Your task to perform on an android device: delete the emails in spam in the gmail app Image 0: 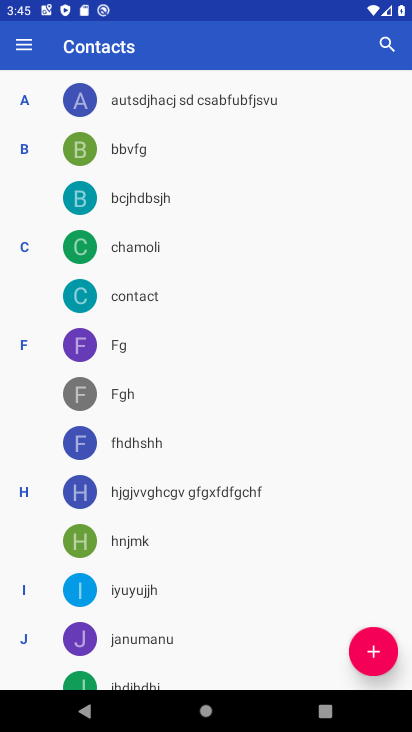
Step 0: press home button
Your task to perform on an android device: delete the emails in spam in the gmail app Image 1: 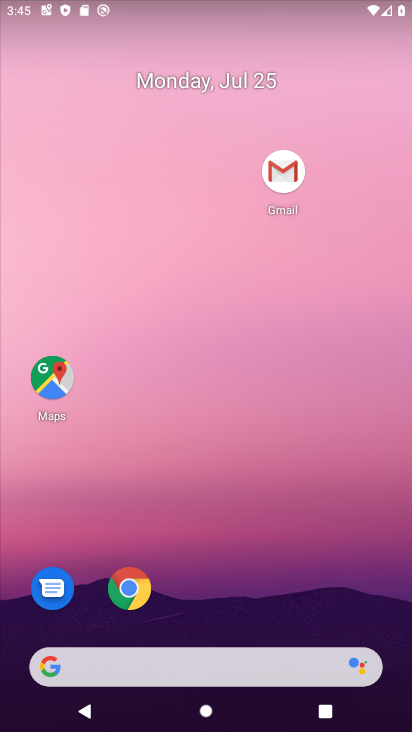
Step 1: drag from (315, 590) to (174, 1)
Your task to perform on an android device: delete the emails in spam in the gmail app Image 2: 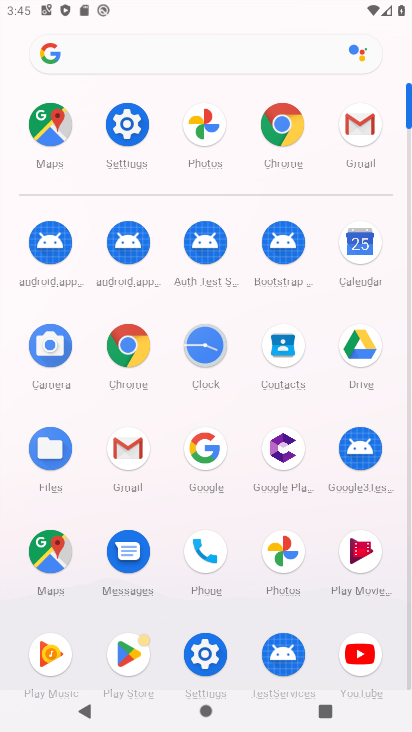
Step 2: click (352, 135)
Your task to perform on an android device: delete the emails in spam in the gmail app Image 3: 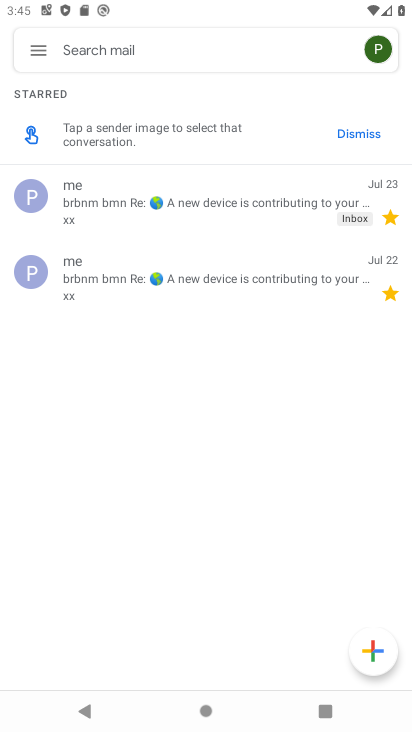
Step 3: click (38, 53)
Your task to perform on an android device: delete the emails in spam in the gmail app Image 4: 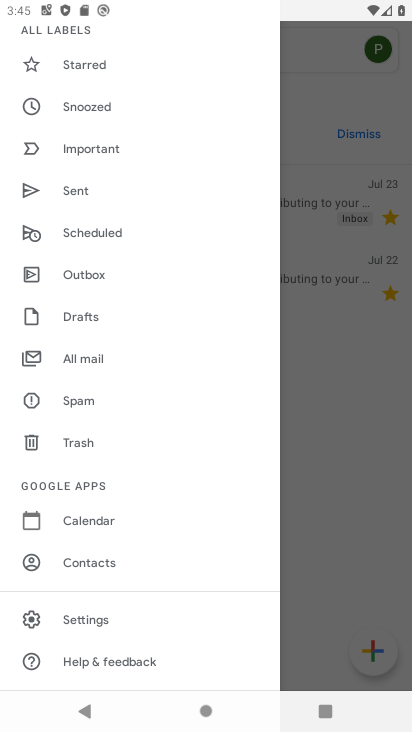
Step 4: click (82, 399)
Your task to perform on an android device: delete the emails in spam in the gmail app Image 5: 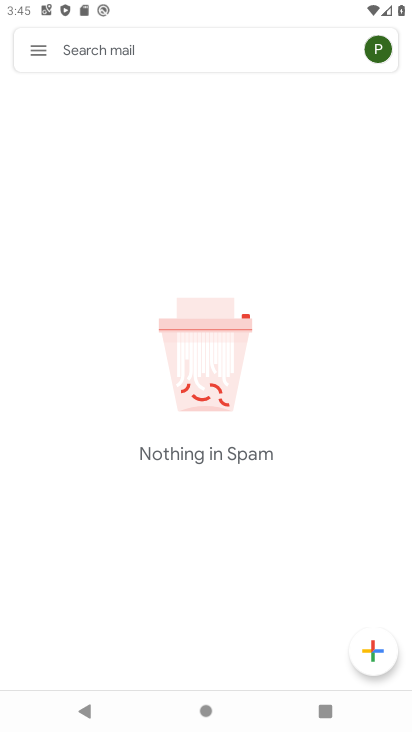
Step 5: task complete